Your task to perform on an android device: Go to sound settings Image 0: 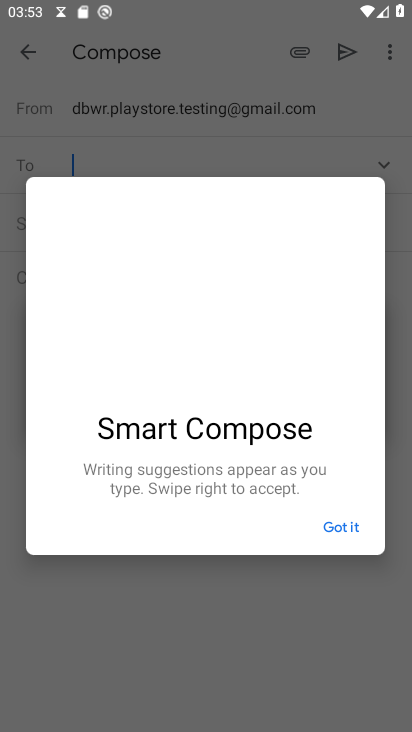
Step 0: press home button
Your task to perform on an android device: Go to sound settings Image 1: 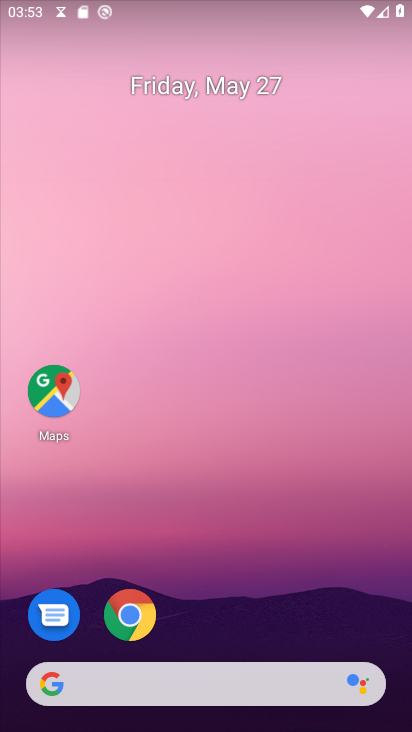
Step 1: drag from (114, 728) to (59, 117)
Your task to perform on an android device: Go to sound settings Image 2: 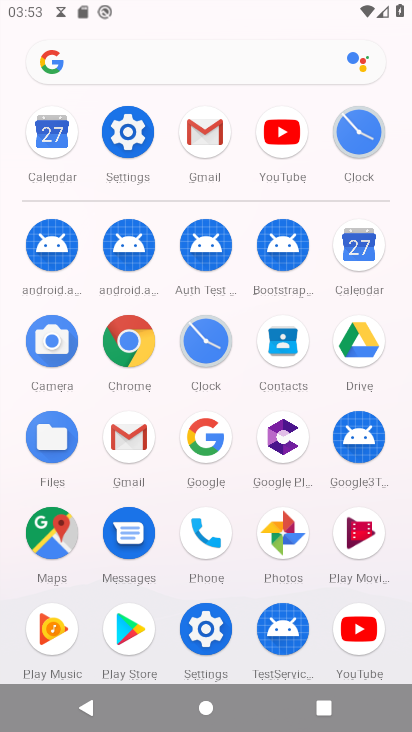
Step 2: click (128, 129)
Your task to perform on an android device: Go to sound settings Image 3: 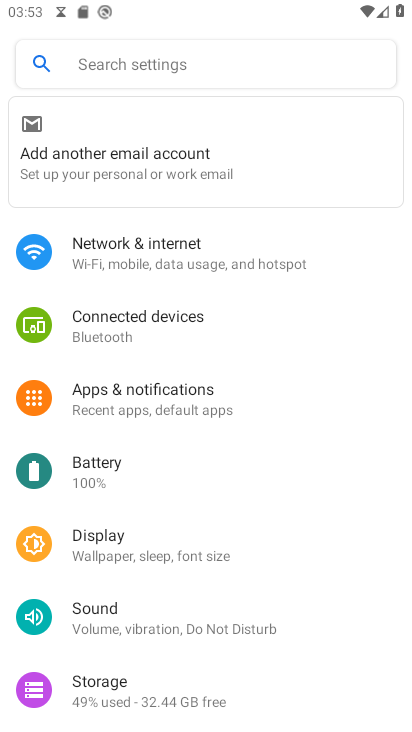
Step 3: click (138, 622)
Your task to perform on an android device: Go to sound settings Image 4: 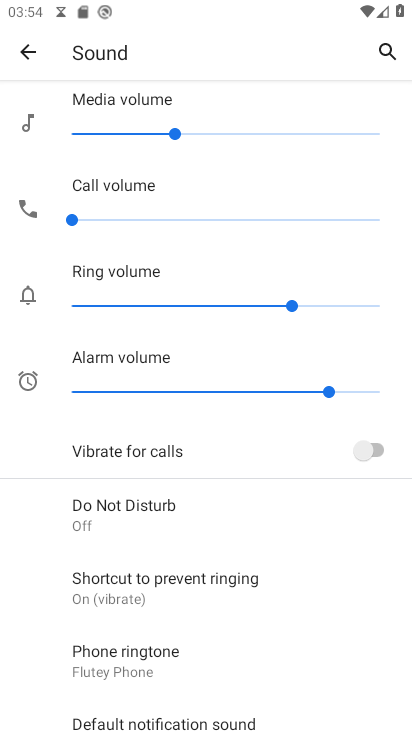
Step 4: task complete